Your task to perform on an android device: turn on notifications settings in the gmail app Image 0: 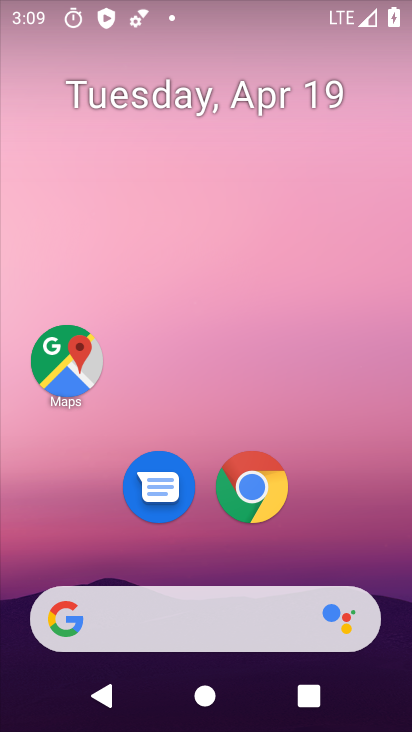
Step 0: click (59, 366)
Your task to perform on an android device: turn on notifications settings in the gmail app Image 1: 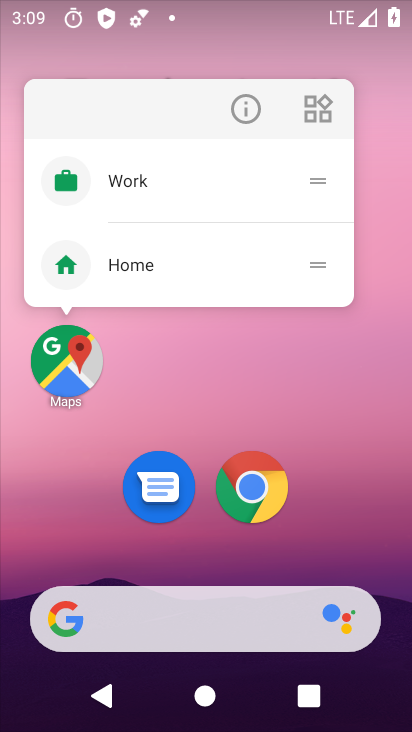
Step 1: click (66, 362)
Your task to perform on an android device: turn on notifications settings in the gmail app Image 2: 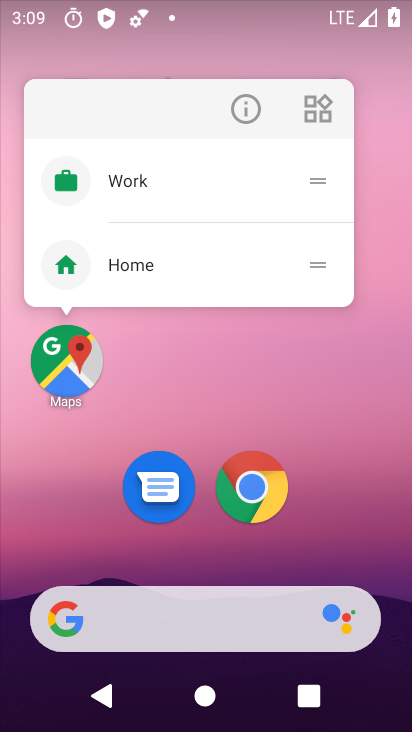
Step 2: click (70, 366)
Your task to perform on an android device: turn on notifications settings in the gmail app Image 3: 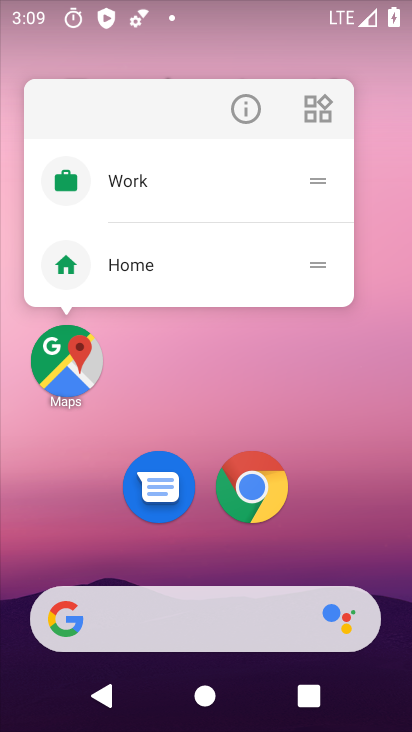
Step 3: click (316, 390)
Your task to perform on an android device: turn on notifications settings in the gmail app Image 4: 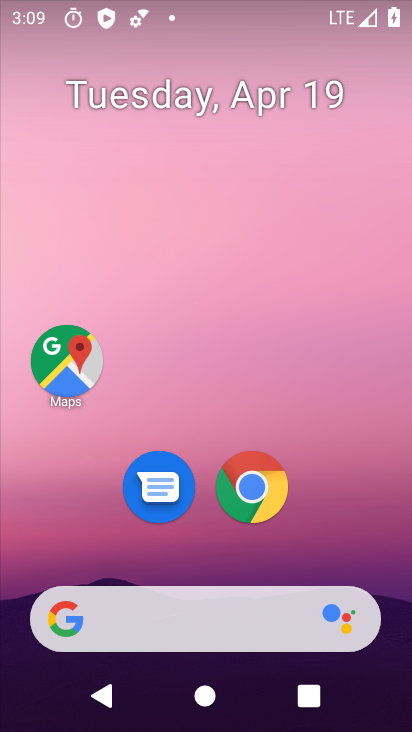
Step 4: drag from (246, 541) to (341, 17)
Your task to perform on an android device: turn on notifications settings in the gmail app Image 5: 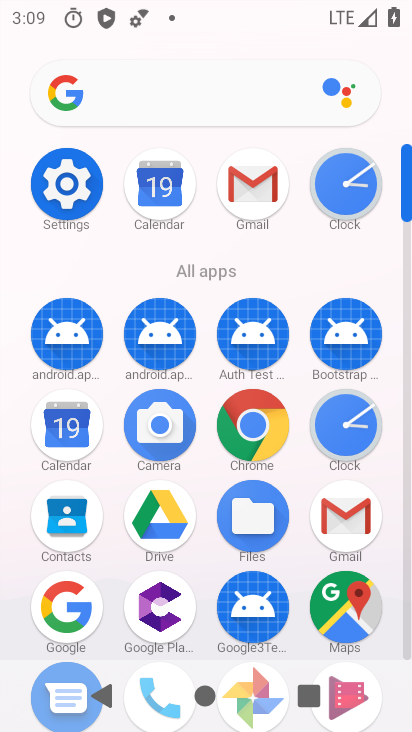
Step 5: click (260, 190)
Your task to perform on an android device: turn on notifications settings in the gmail app Image 6: 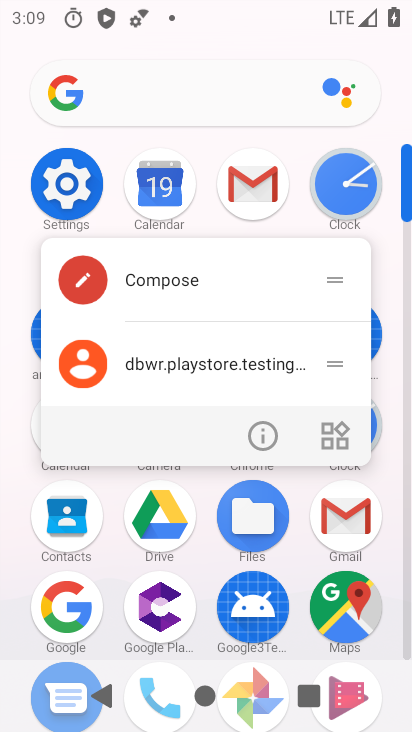
Step 6: click (261, 435)
Your task to perform on an android device: turn on notifications settings in the gmail app Image 7: 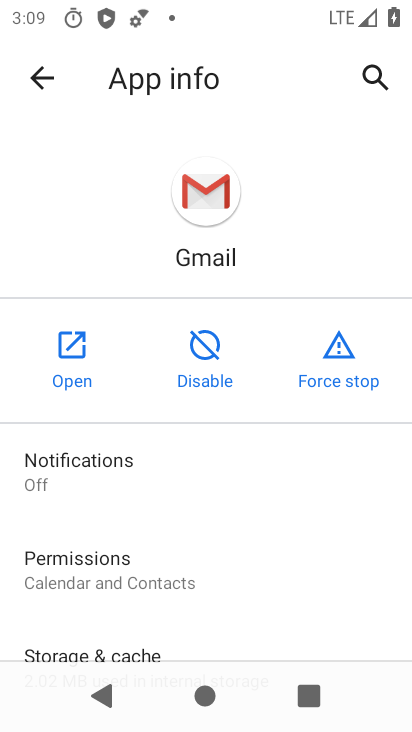
Step 7: click (119, 481)
Your task to perform on an android device: turn on notifications settings in the gmail app Image 8: 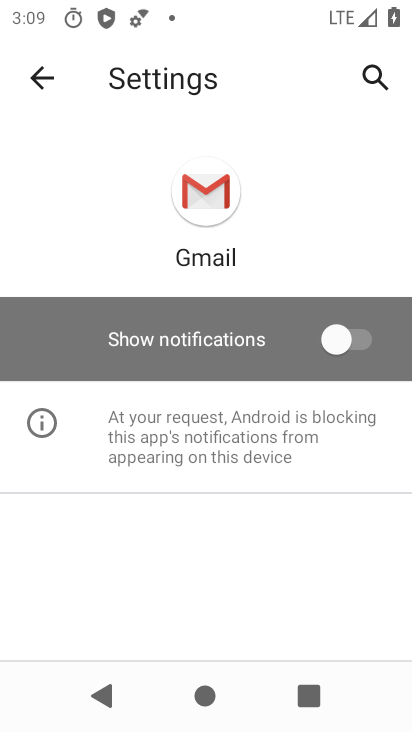
Step 8: click (338, 335)
Your task to perform on an android device: turn on notifications settings in the gmail app Image 9: 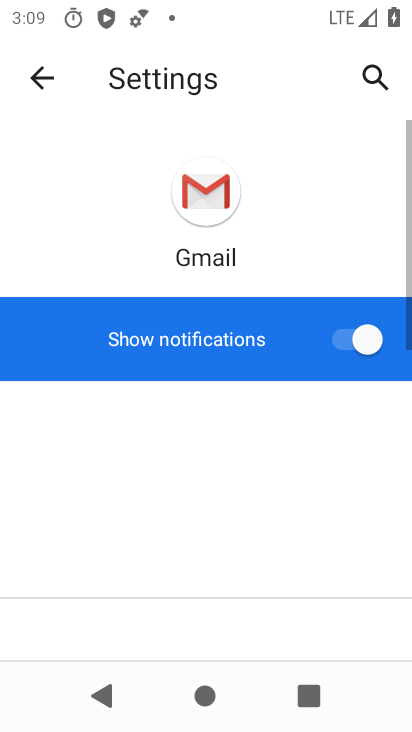
Step 9: task complete